Your task to perform on an android device: Open location settings Image 0: 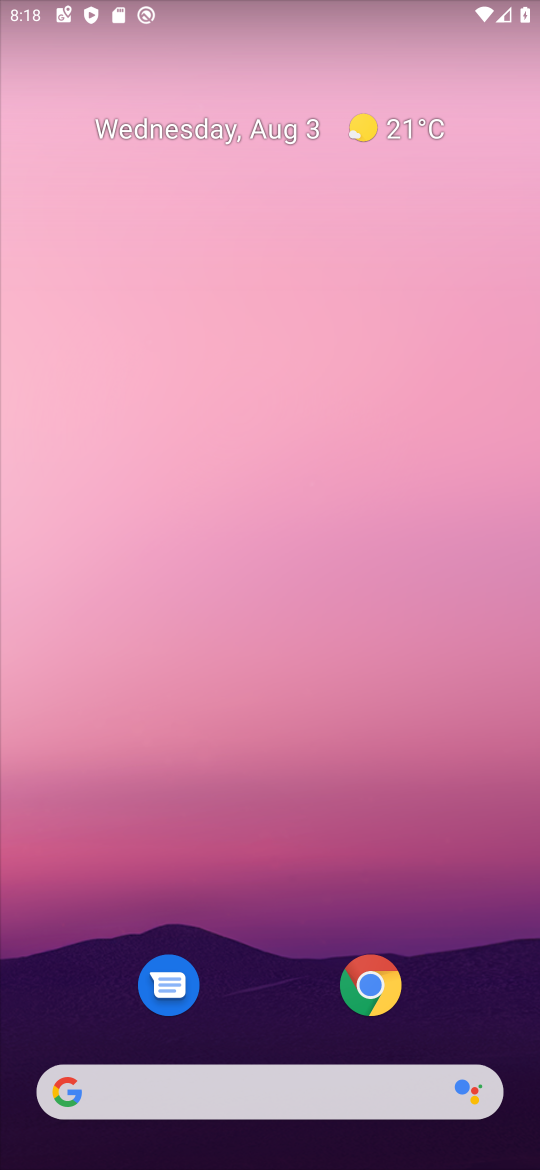
Step 0: drag from (281, 970) to (305, 344)
Your task to perform on an android device: Open location settings Image 1: 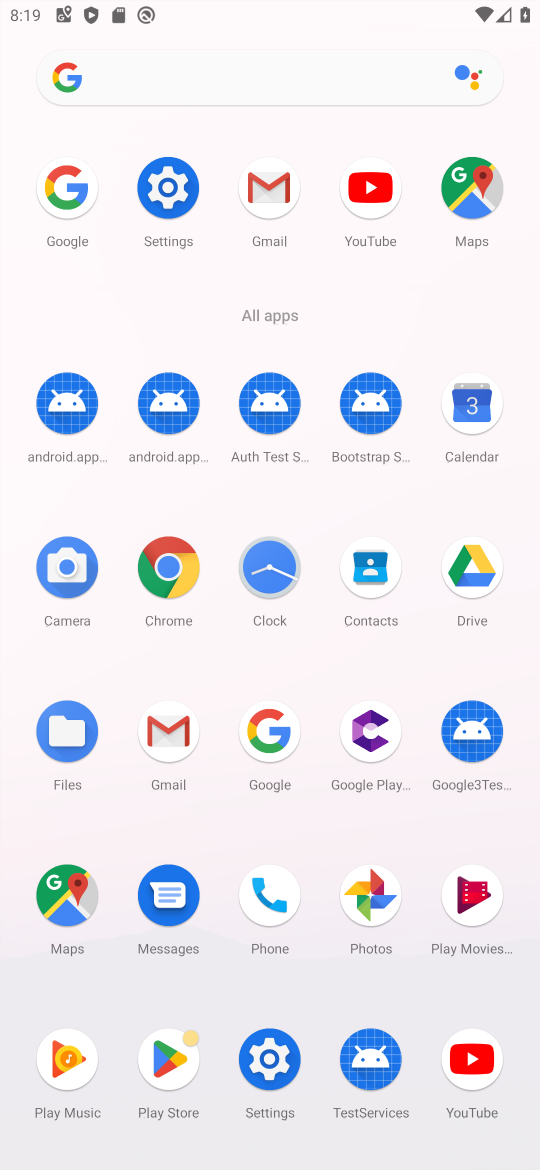
Step 1: click (192, 199)
Your task to perform on an android device: Open location settings Image 2: 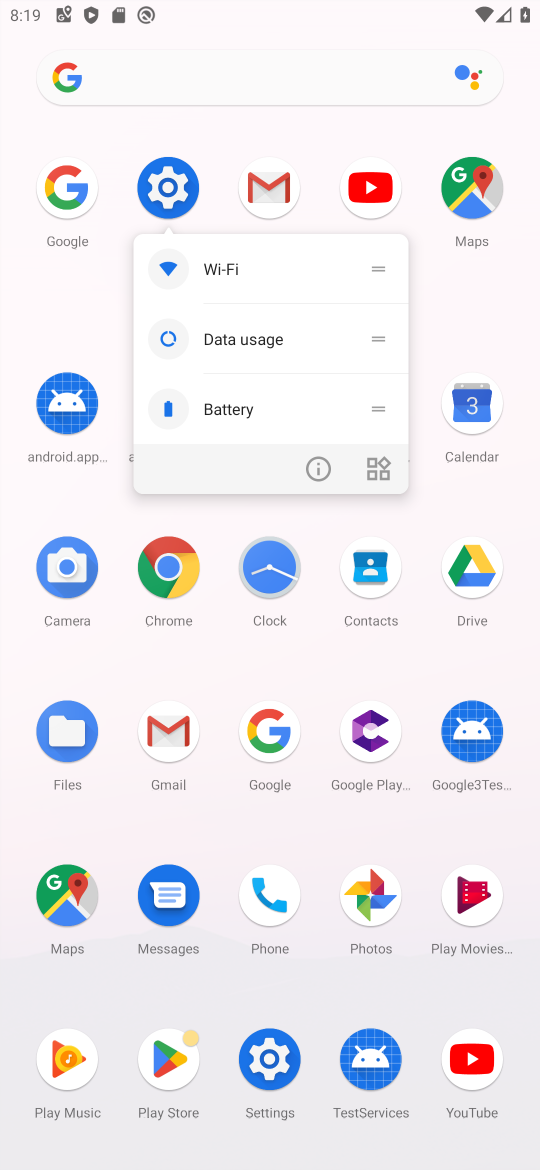
Step 2: click (192, 199)
Your task to perform on an android device: Open location settings Image 3: 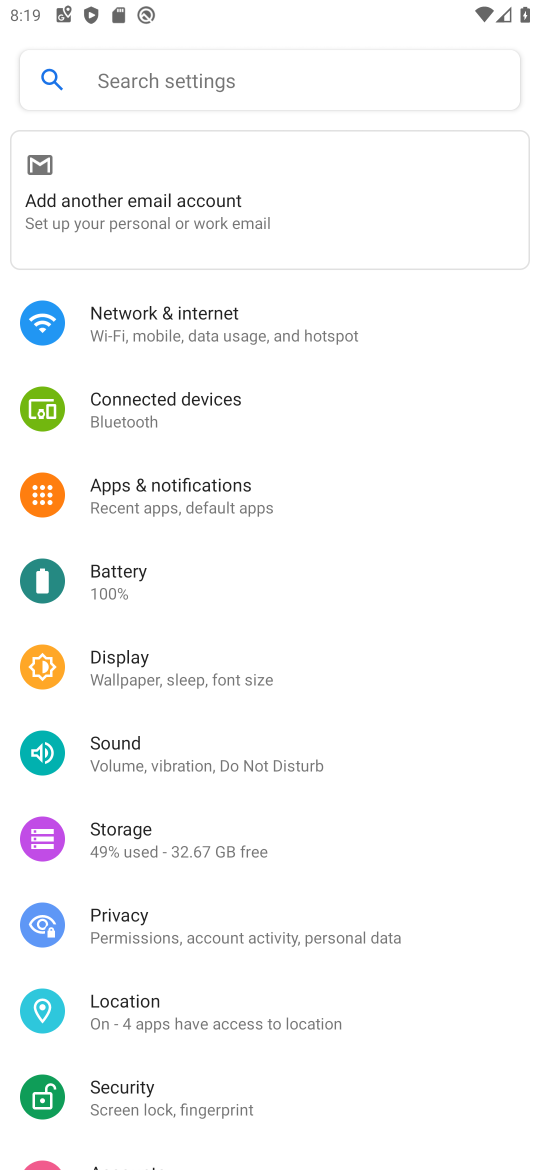
Step 3: click (196, 1002)
Your task to perform on an android device: Open location settings Image 4: 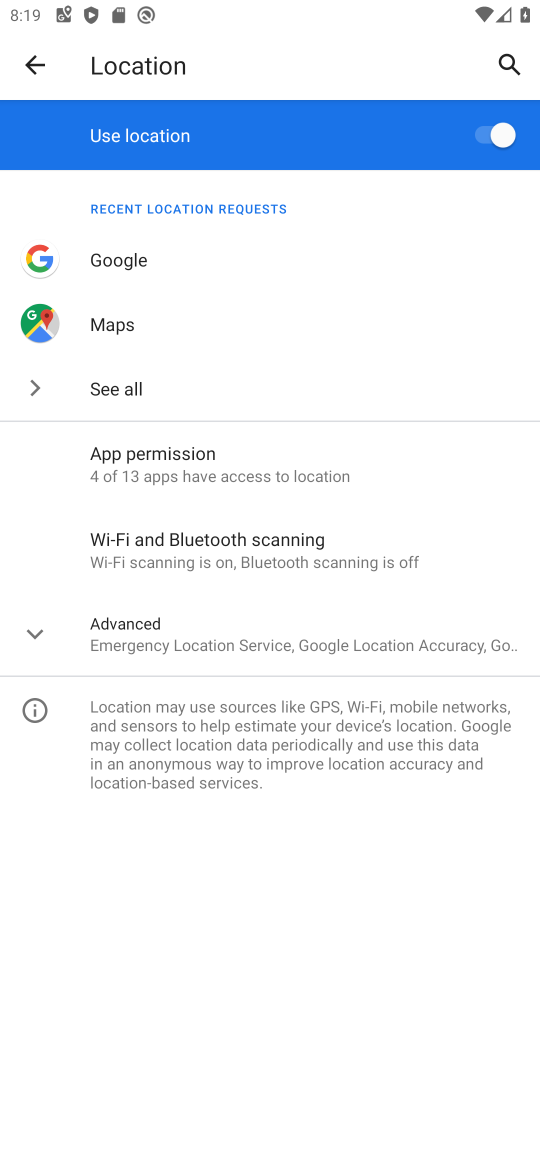
Step 4: task complete